Your task to perform on an android device: Open the Play Movies app and select the watchlist tab. Image 0: 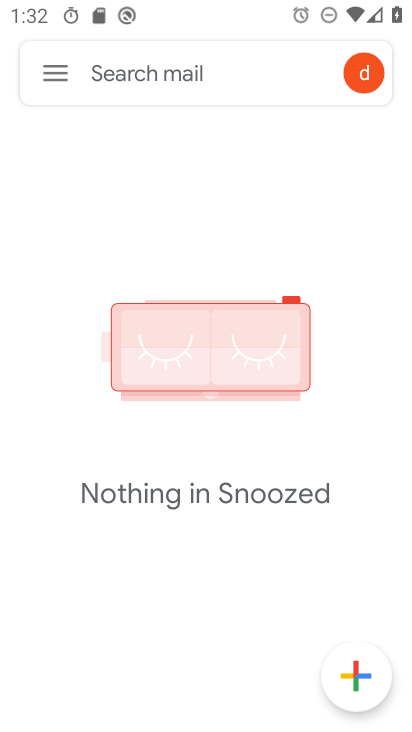
Step 0: press home button
Your task to perform on an android device: Open the Play Movies app and select the watchlist tab. Image 1: 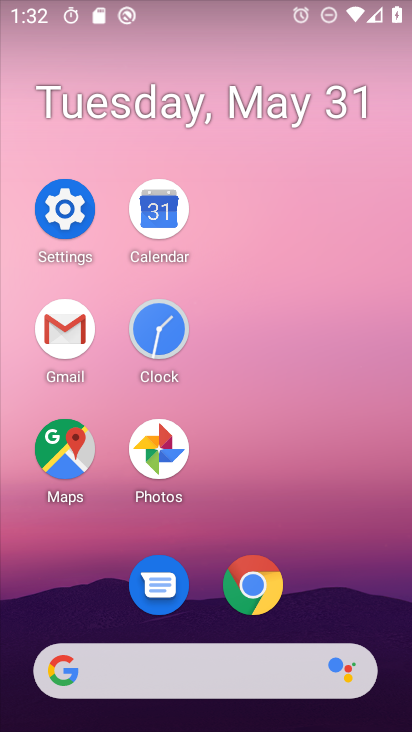
Step 1: drag from (317, 587) to (302, 163)
Your task to perform on an android device: Open the Play Movies app and select the watchlist tab. Image 2: 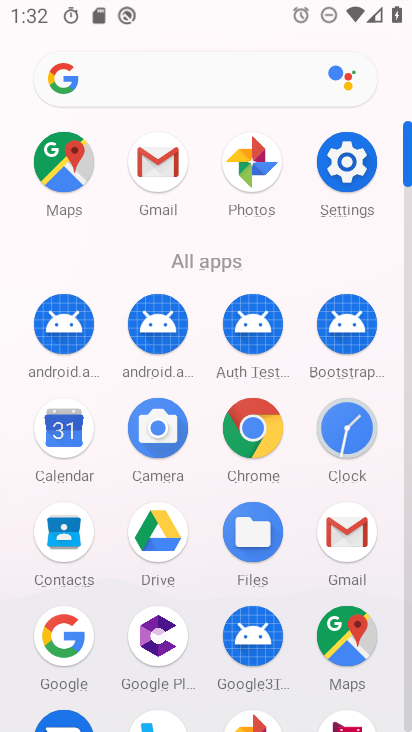
Step 2: drag from (209, 592) to (247, 236)
Your task to perform on an android device: Open the Play Movies app and select the watchlist tab. Image 3: 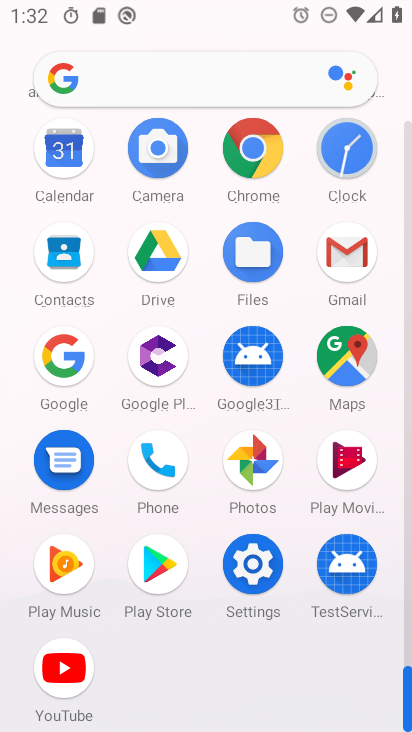
Step 3: click (323, 459)
Your task to perform on an android device: Open the Play Movies app and select the watchlist tab. Image 4: 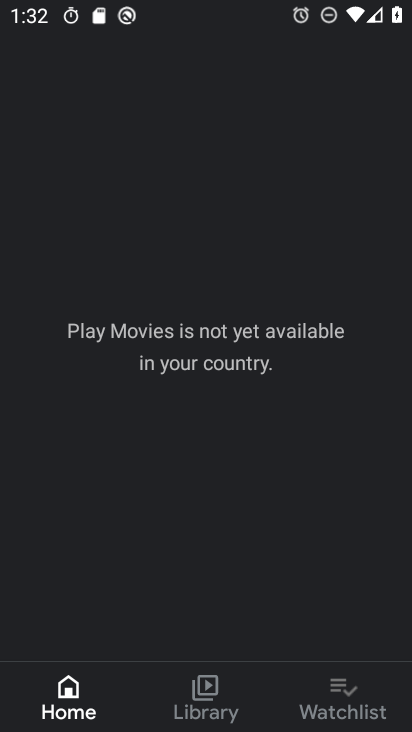
Step 4: click (360, 682)
Your task to perform on an android device: Open the Play Movies app and select the watchlist tab. Image 5: 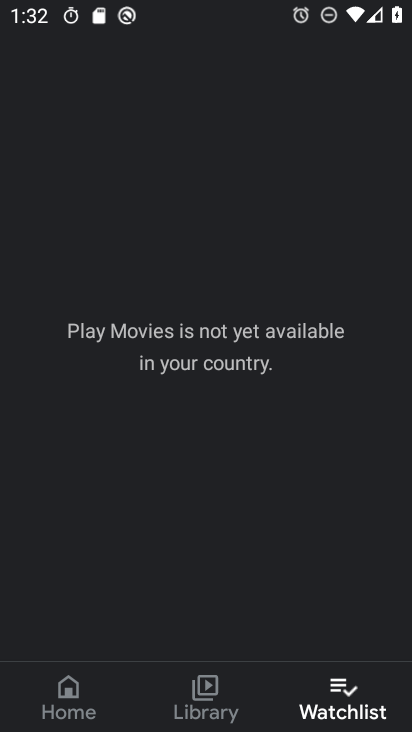
Step 5: task complete